Your task to perform on an android device: Show me productivity apps on the Play Store Image 0: 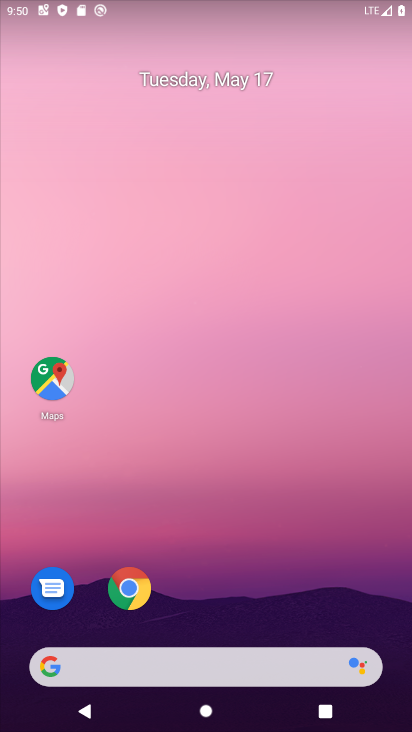
Step 0: drag from (203, 667) to (180, 32)
Your task to perform on an android device: Show me productivity apps on the Play Store Image 1: 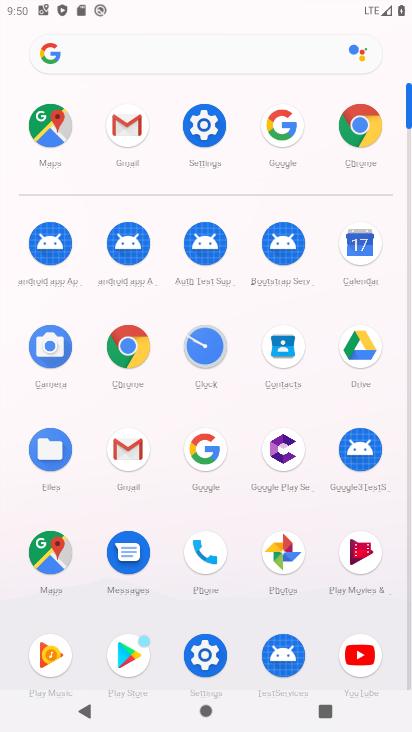
Step 1: click (138, 663)
Your task to perform on an android device: Show me productivity apps on the Play Store Image 2: 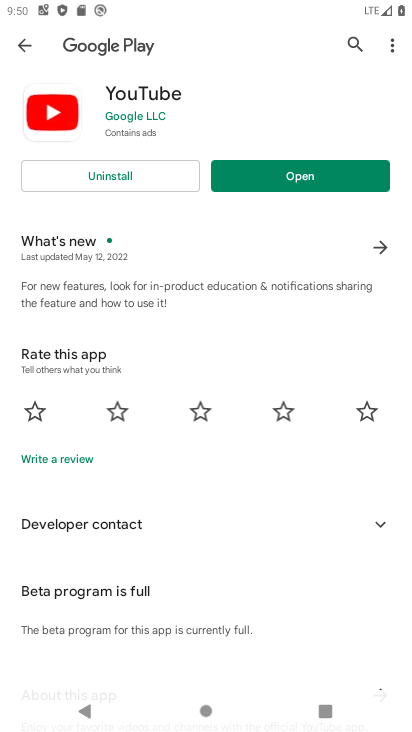
Step 2: click (32, 51)
Your task to perform on an android device: Show me productivity apps on the Play Store Image 3: 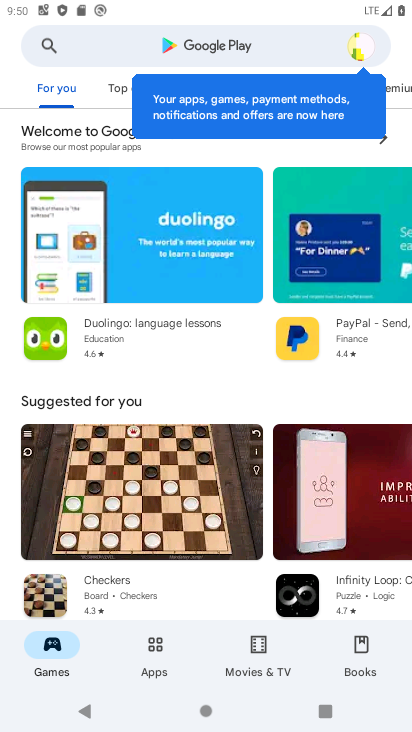
Step 3: click (148, 669)
Your task to perform on an android device: Show me productivity apps on the Play Store Image 4: 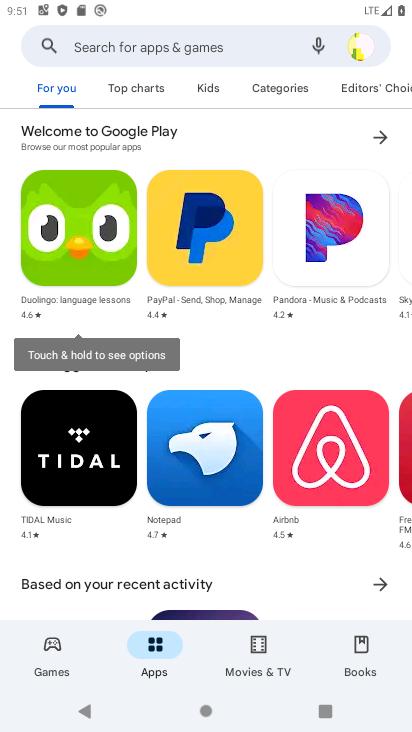
Step 4: drag from (269, 89) to (19, 63)
Your task to perform on an android device: Show me productivity apps on the Play Store Image 5: 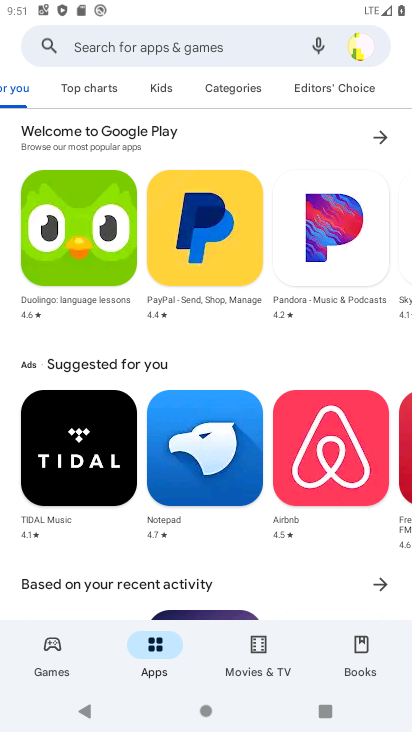
Step 5: click (241, 91)
Your task to perform on an android device: Show me productivity apps on the Play Store Image 6: 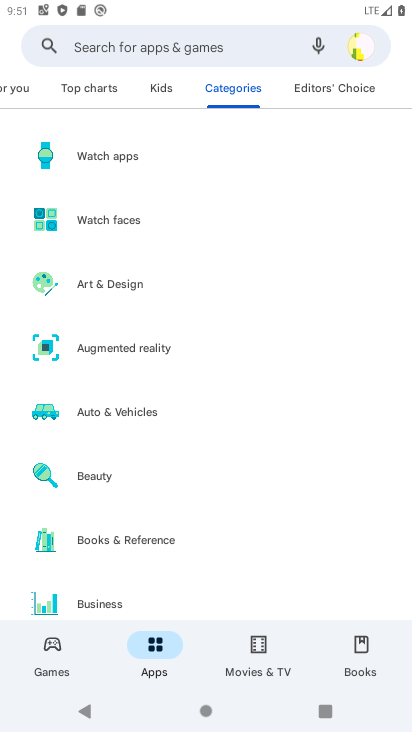
Step 6: drag from (197, 580) to (187, 87)
Your task to perform on an android device: Show me productivity apps on the Play Store Image 7: 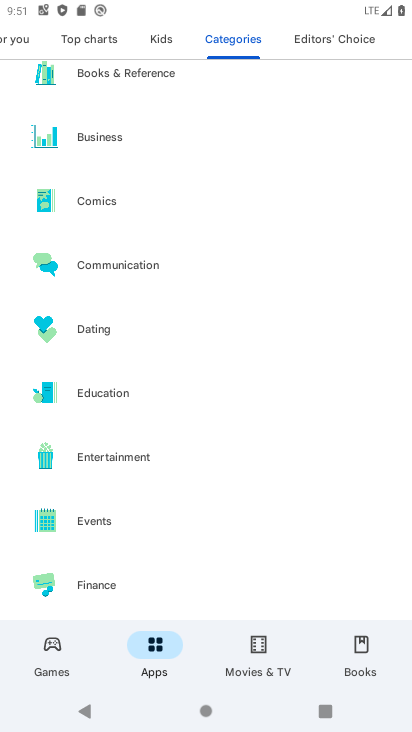
Step 7: drag from (210, 468) to (198, 5)
Your task to perform on an android device: Show me productivity apps on the Play Store Image 8: 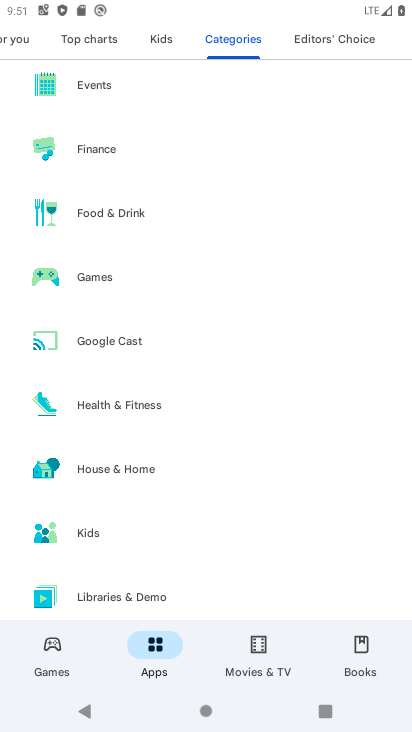
Step 8: drag from (208, 529) to (204, 114)
Your task to perform on an android device: Show me productivity apps on the Play Store Image 9: 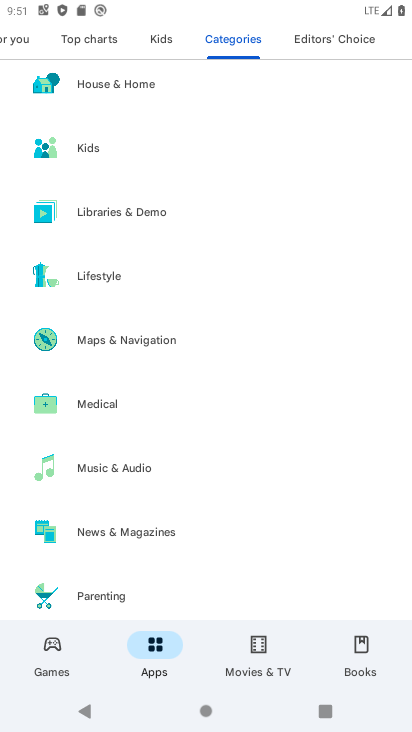
Step 9: drag from (141, 544) to (150, 161)
Your task to perform on an android device: Show me productivity apps on the Play Store Image 10: 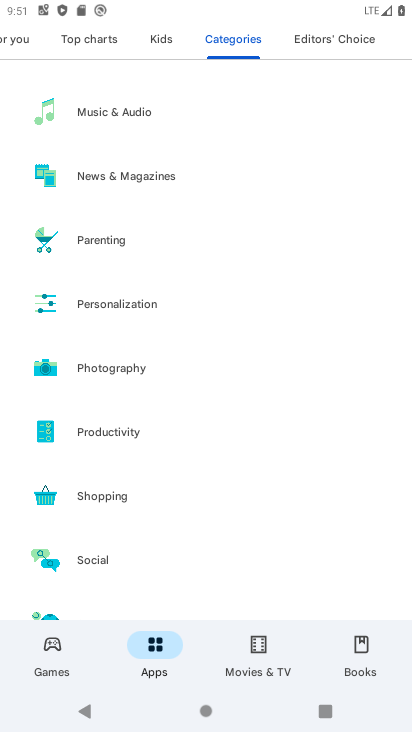
Step 10: click (119, 433)
Your task to perform on an android device: Show me productivity apps on the Play Store Image 11: 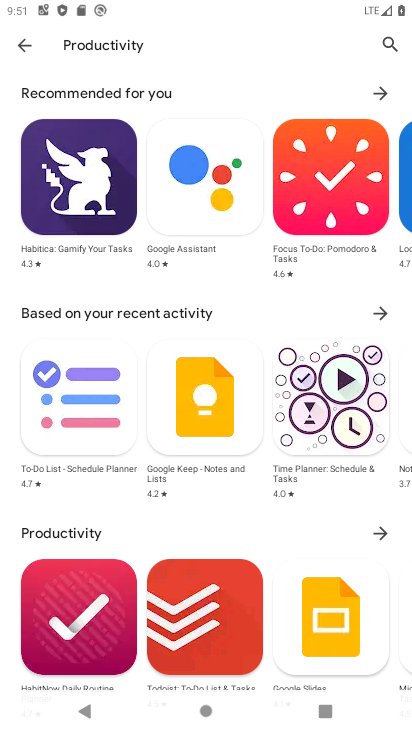
Step 11: task complete